Your task to perform on an android device: stop showing notifications on the lock screen Image 0: 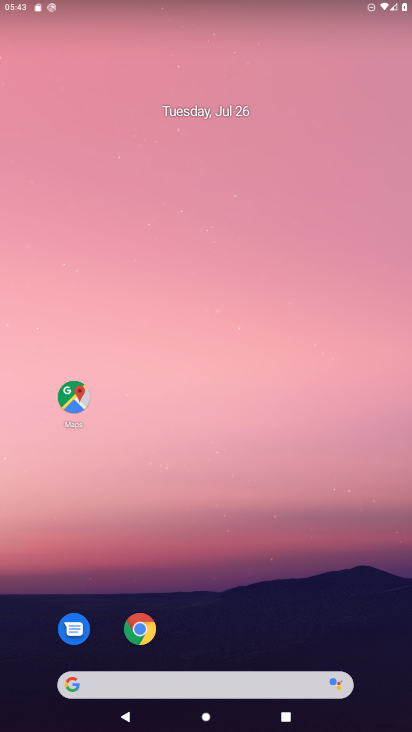
Step 0: click (220, 69)
Your task to perform on an android device: stop showing notifications on the lock screen Image 1: 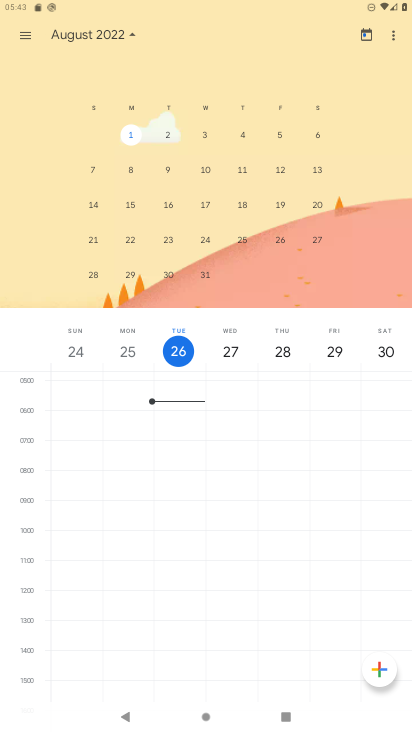
Step 1: press home button
Your task to perform on an android device: stop showing notifications on the lock screen Image 2: 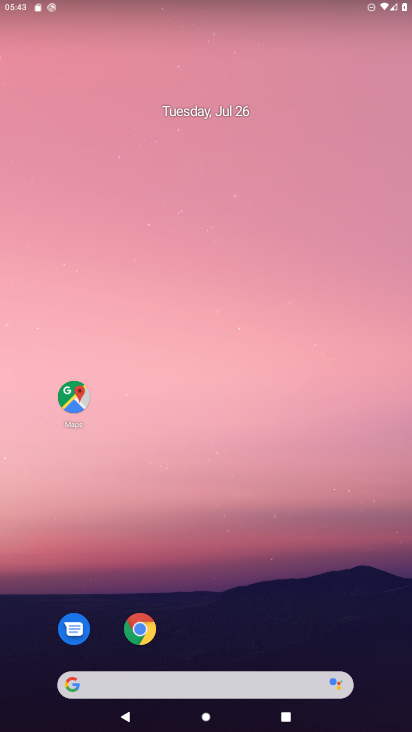
Step 2: drag from (208, 627) to (192, 252)
Your task to perform on an android device: stop showing notifications on the lock screen Image 3: 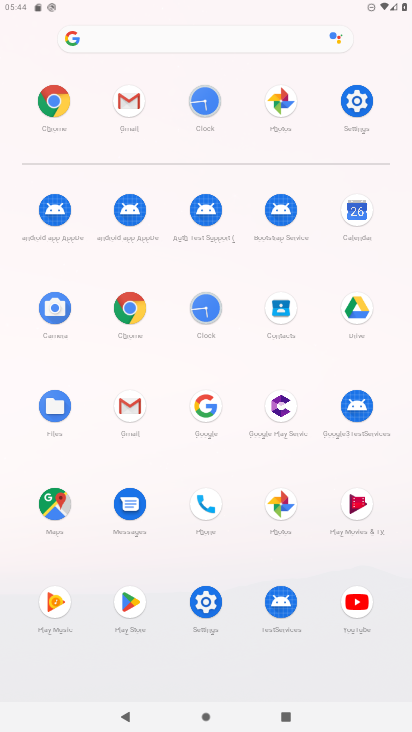
Step 3: click (354, 103)
Your task to perform on an android device: stop showing notifications on the lock screen Image 4: 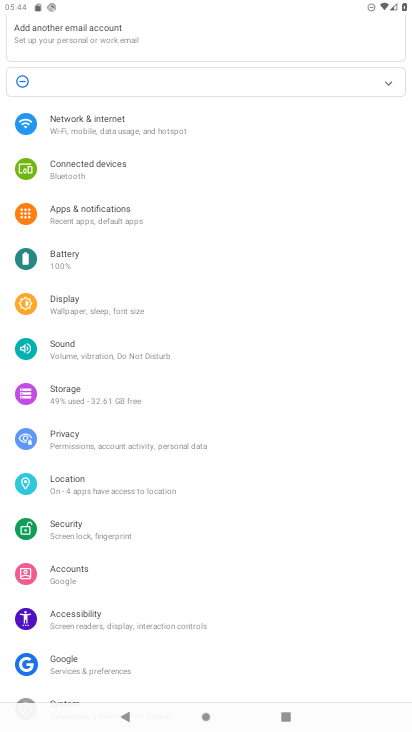
Step 4: click (88, 212)
Your task to perform on an android device: stop showing notifications on the lock screen Image 5: 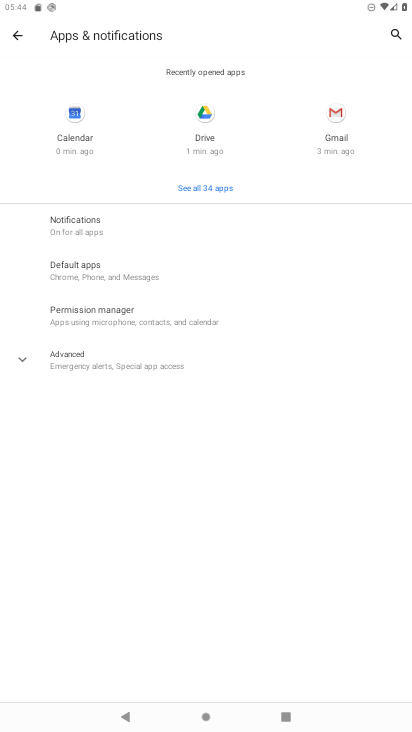
Step 5: click (70, 226)
Your task to perform on an android device: stop showing notifications on the lock screen Image 6: 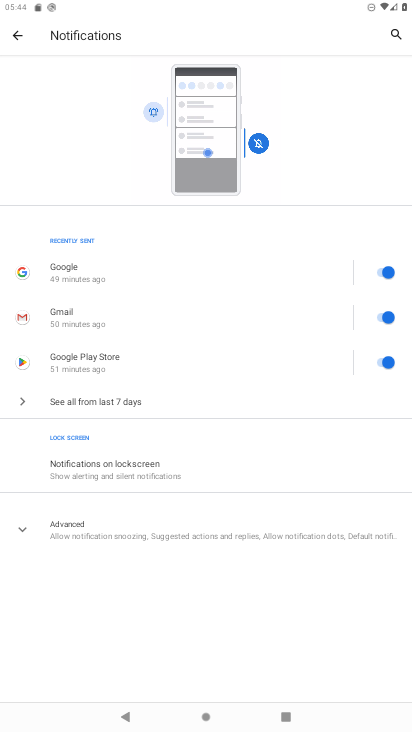
Step 6: click (95, 468)
Your task to perform on an android device: stop showing notifications on the lock screen Image 7: 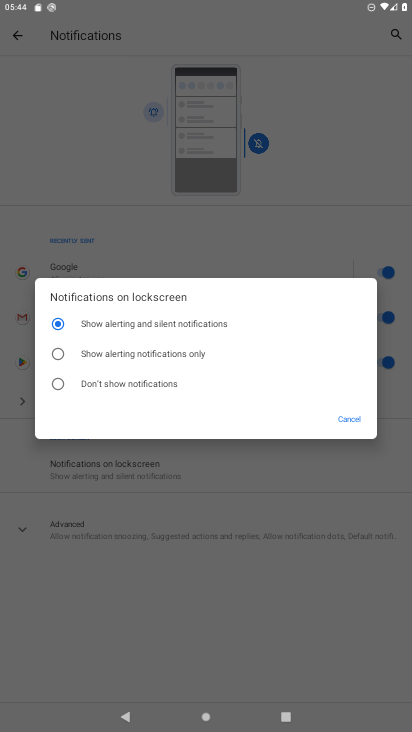
Step 7: click (58, 380)
Your task to perform on an android device: stop showing notifications on the lock screen Image 8: 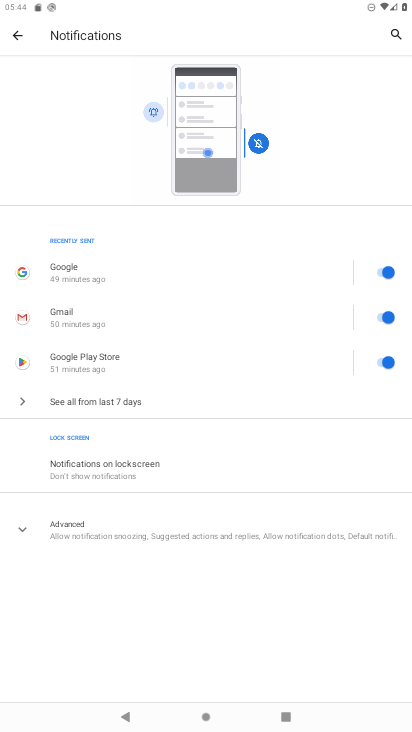
Step 8: task complete